Your task to perform on an android device: change your default location settings in chrome Image 0: 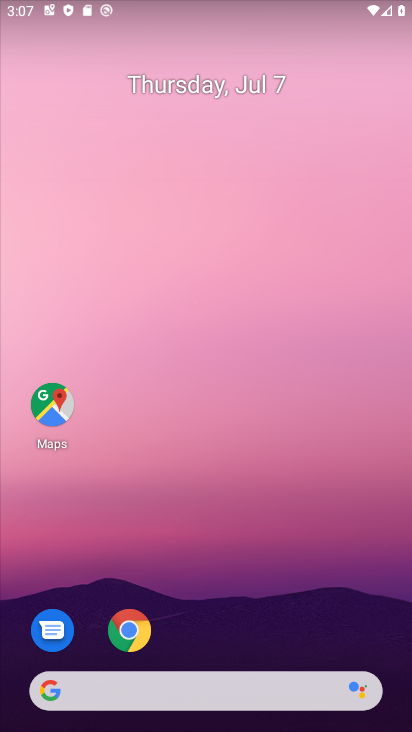
Step 0: click (131, 635)
Your task to perform on an android device: change your default location settings in chrome Image 1: 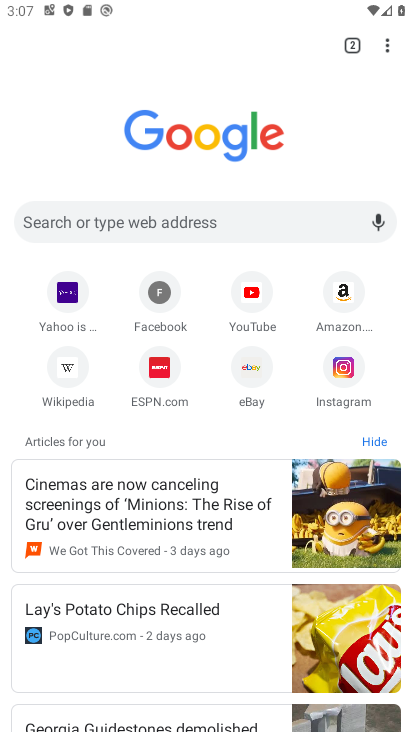
Step 1: click (387, 50)
Your task to perform on an android device: change your default location settings in chrome Image 2: 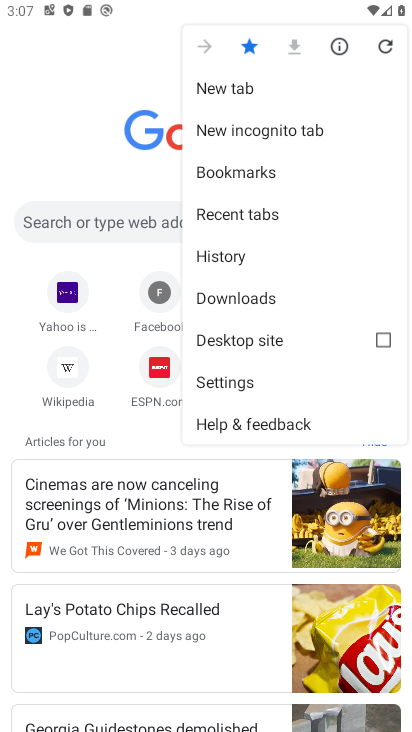
Step 2: click (243, 384)
Your task to perform on an android device: change your default location settings in chrome Image 3: 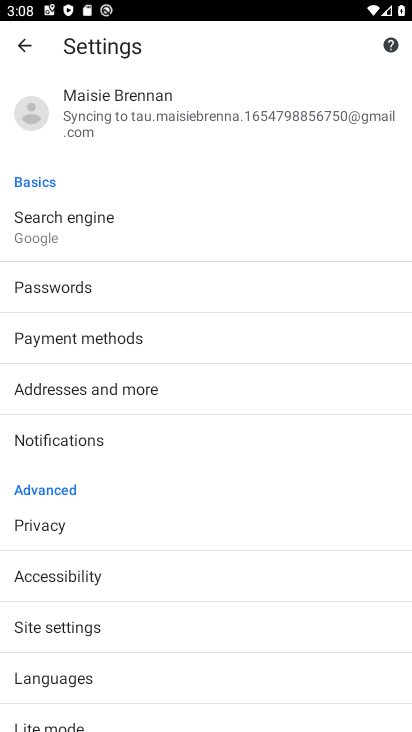
Step 3: click (82, 624)
Your task to perform on an android device: change your default location settings in chrome Image 4: 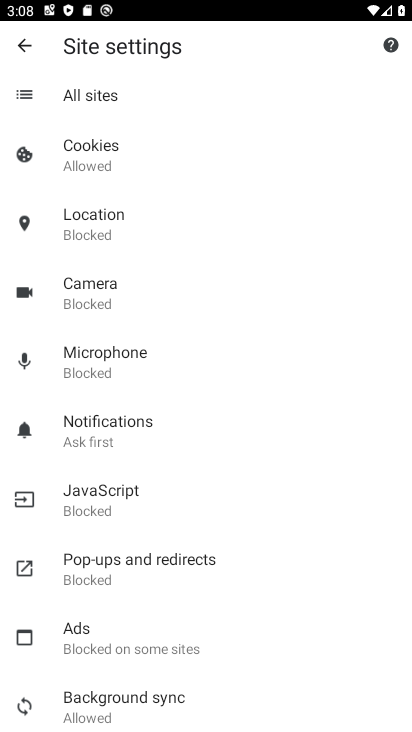
Step 4: click (118, 230)
Your task to perform on an android device: change your default location settings in chrome Image 5: 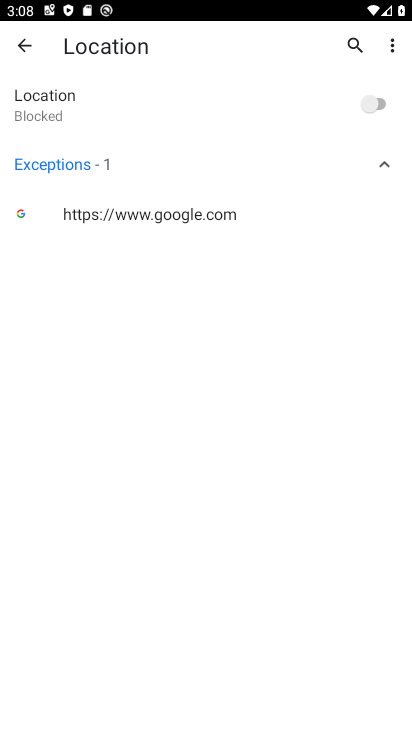
Step 5: click (391, 103)
Your task to perform on an android device: change your default location settings in chrome Image 6: 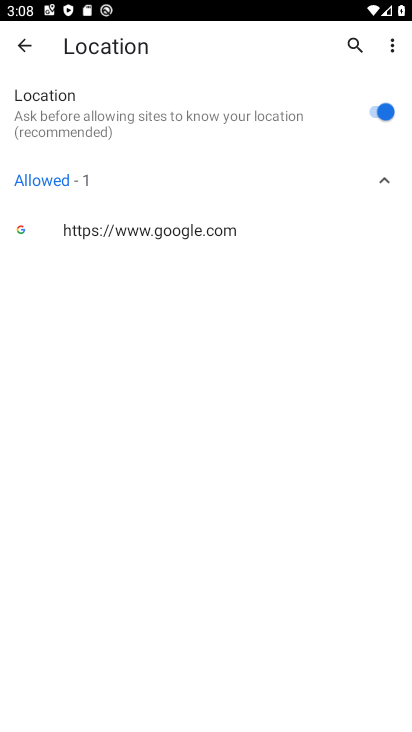
Step 6: task complete